Your task to perform on an android device: Toggle the flashlight Image 0: 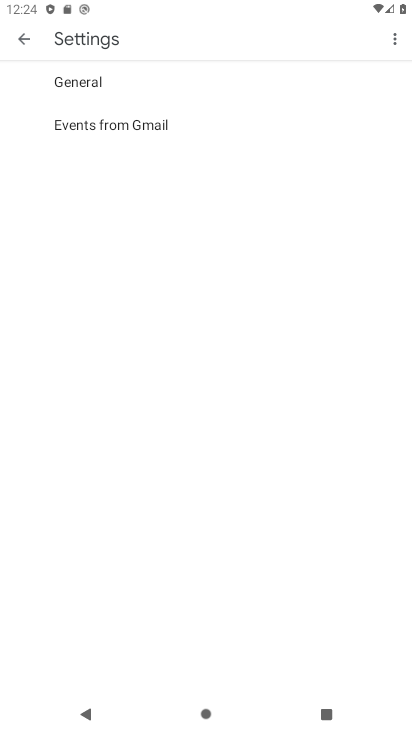
Step 0: press home button
Your task to perform on an android device: Toggle the flashlight Image 1: 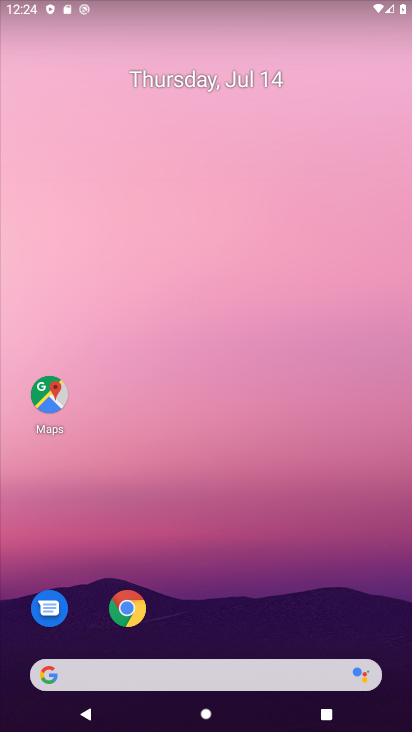
Step 1: task complete